Your task to perform on an android device: change your default location settings in chrome Image 0: 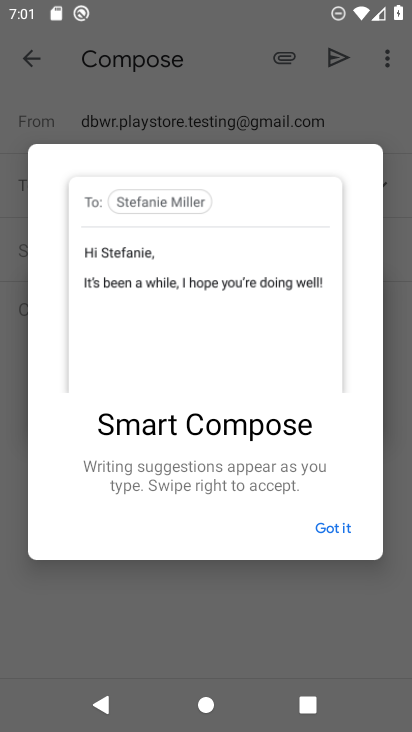
Step 0: press home button
Your task to perform on an android device: change your default location settings in chrome Image 1: 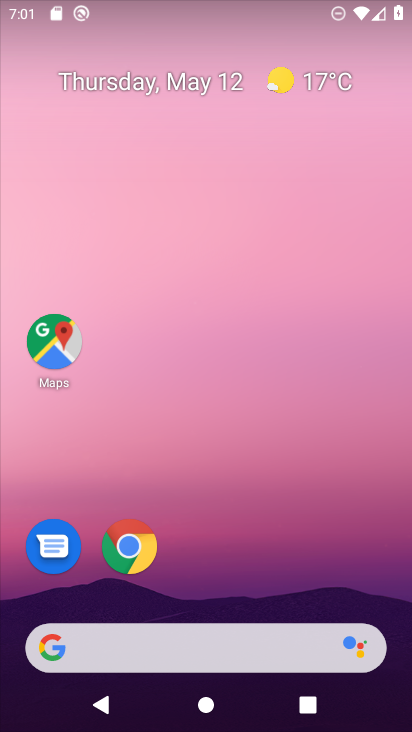
Step 1: click (126, 549)
Your task to perform on an android device: change your default location settings in chrome Image 2: 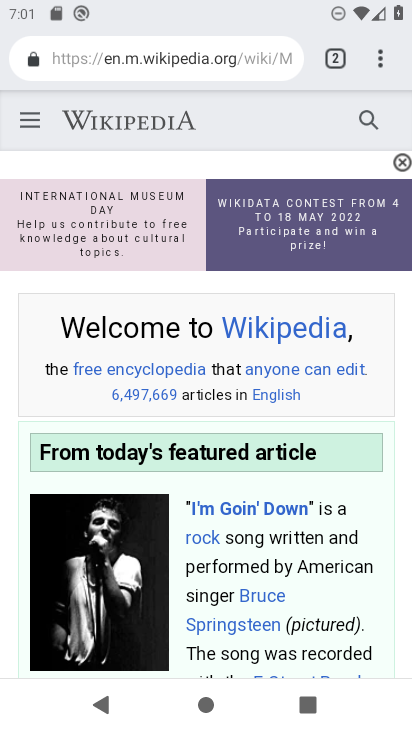
Step 2: click (377, 57)
Your task to perform on an android device: change your default location settings in chrome Image 3: 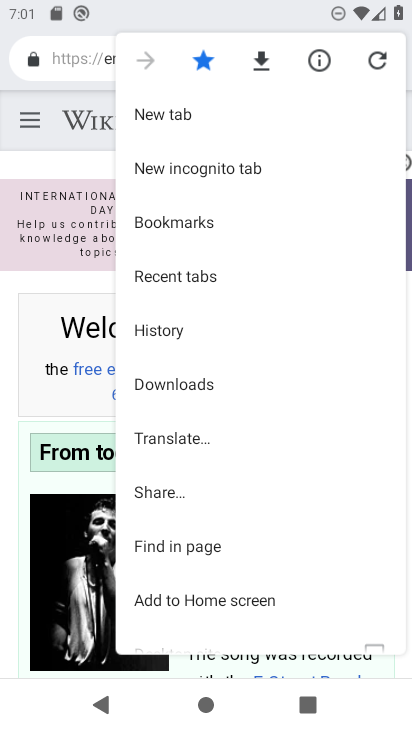
Step 3: drag from (279, 538) to (230, 270)
Your task to perform on an android device: change your default location settings in chrome Image 4: 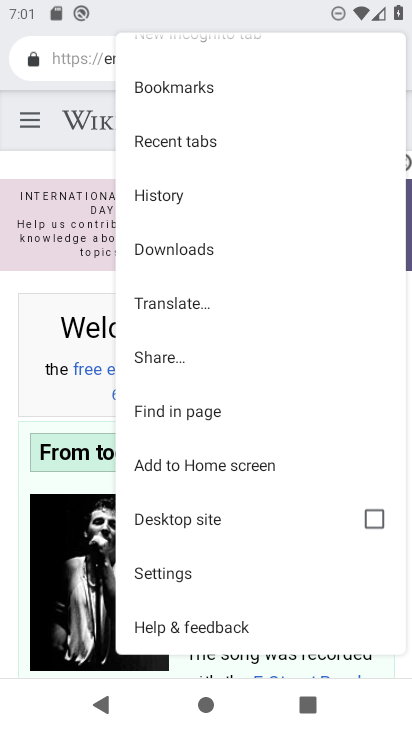
Step 4: click (174, 574)
Your task to perform on an android device: change your default location settings in chrome Image 5: 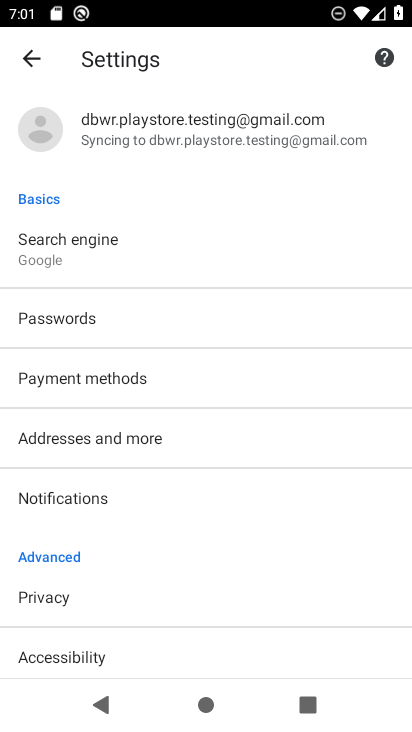
Step 5: drag from (265, 464) to (222, 153)
Your task to perform on an android device: change your default location settings in chrome Image 6: 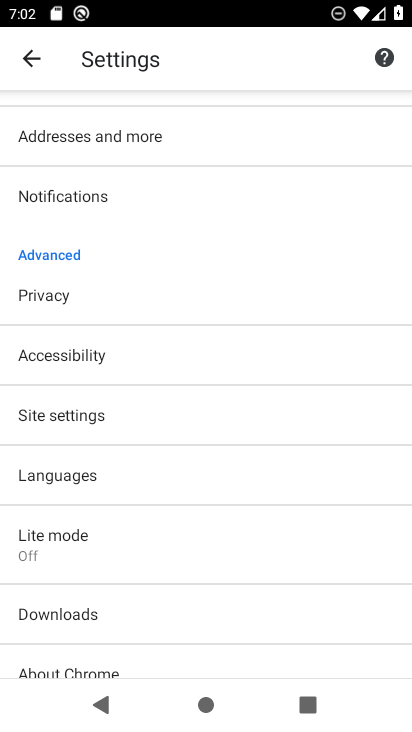
Step 6: click (72, 418)
Your task to perform on an android device: change your default location settings in chrome Image 7: 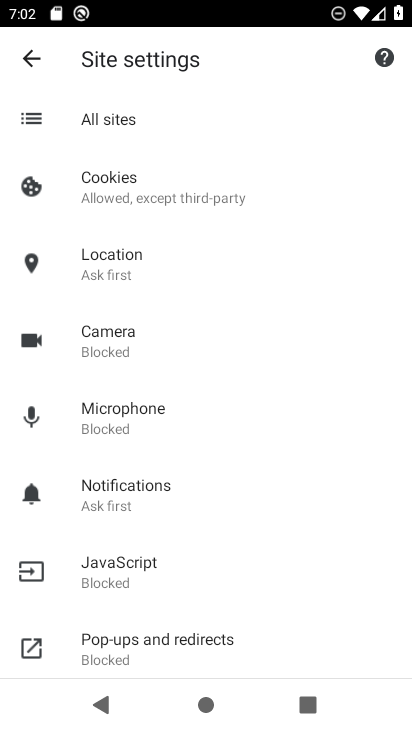
Step 7: click (102, 256)
Your task to perform on an android device: change your default location settings in chrome Image 8: 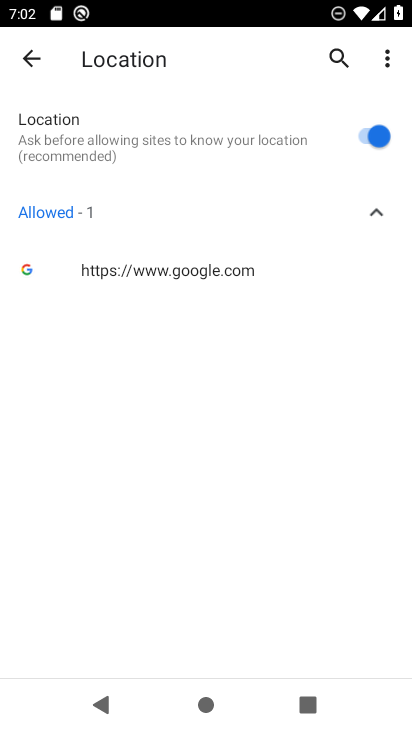
Step 8: click (380, 145)
Your task to perform on an android device: change your default location settings in chrome Image 9: 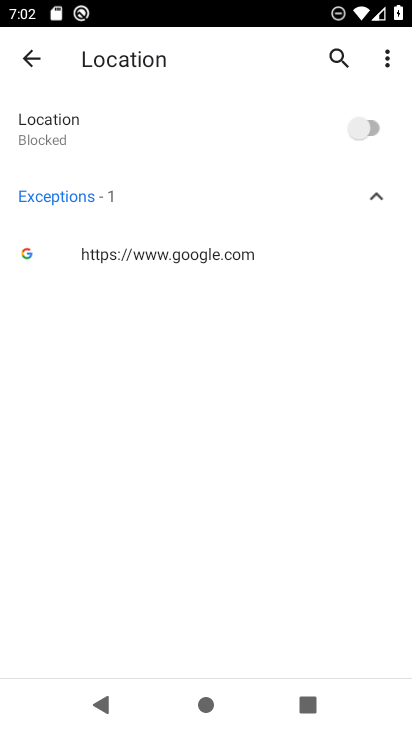
Step 9: task complete